Your task to perform on an android device: Go to display settings Image 0: 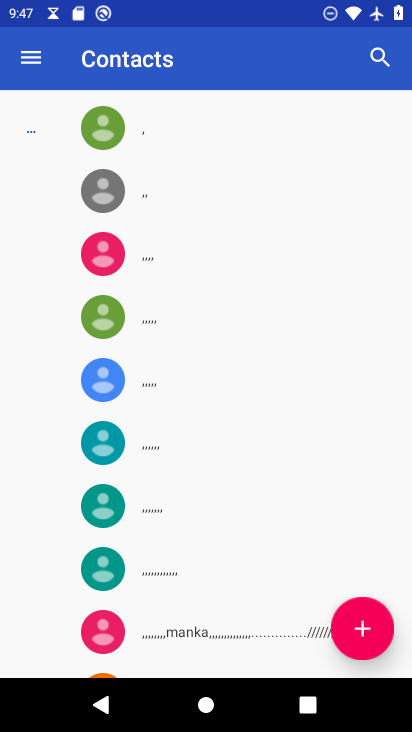
Step 0: press home button
Your task to perform on an android device: Go to display settings Image 1: 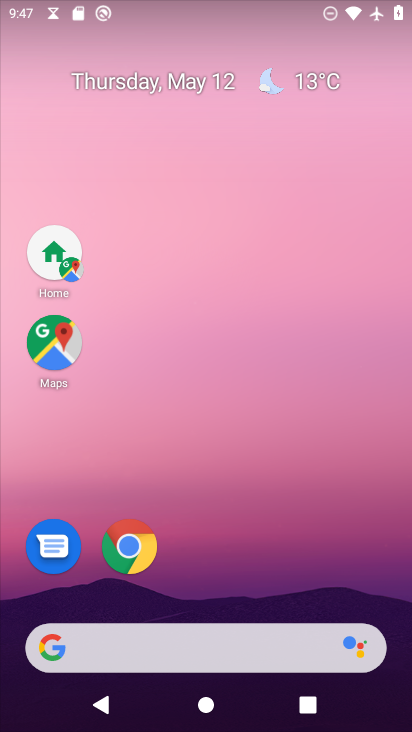
Step 1: drag from (168, 604) to (325, 128)
Your task to perform on an android device: Go to display settings Image 2: 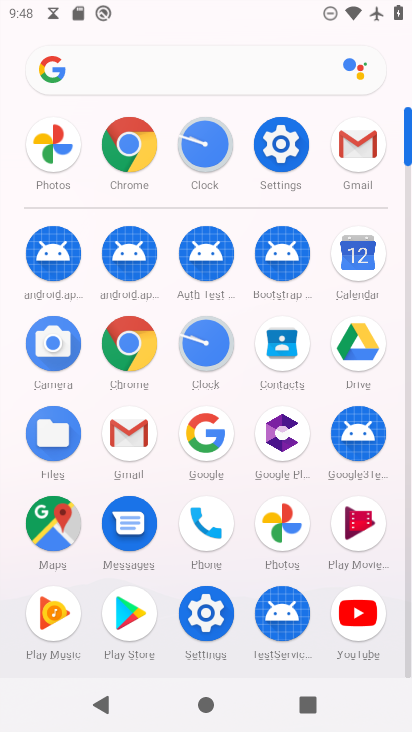
Step 2: click (291, 151)
Your task to perform on an android device: Go to display settings Image 3: 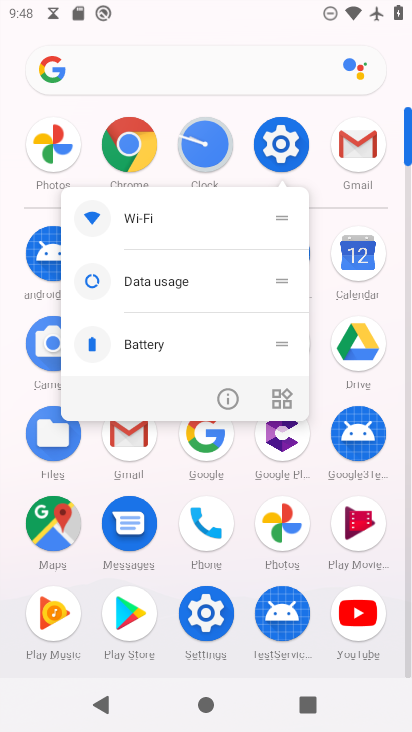
Step 3: click (276, 153)
Your task to perform on an android device: Go to display settings Image 4: 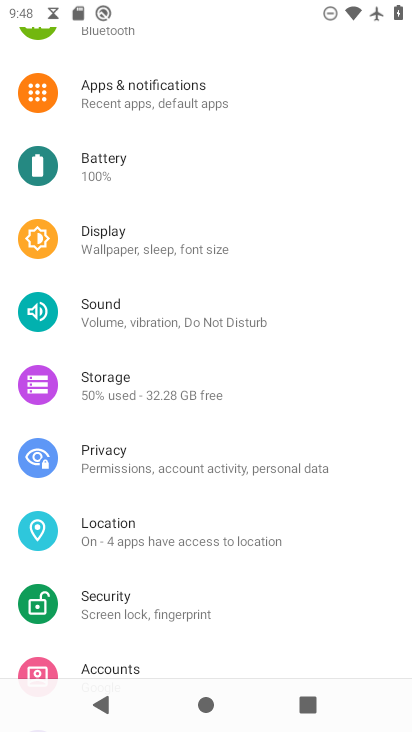
Step 4: click (113, 233)
Your task to perform on an android device: Go to display settings Image 5: 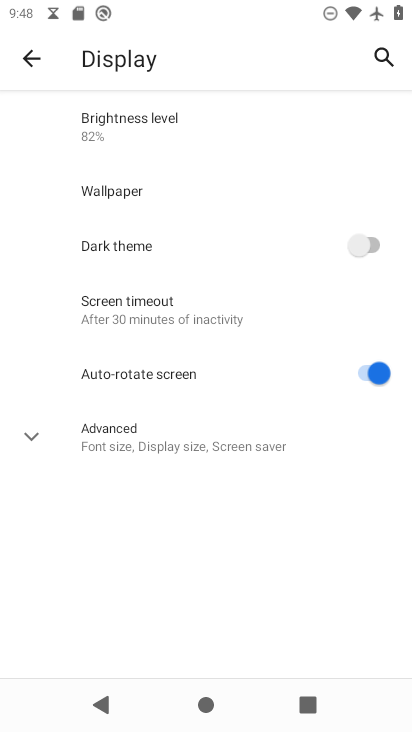
Step 5: task complete